Your task to perform on an android device: check storage Image 0: 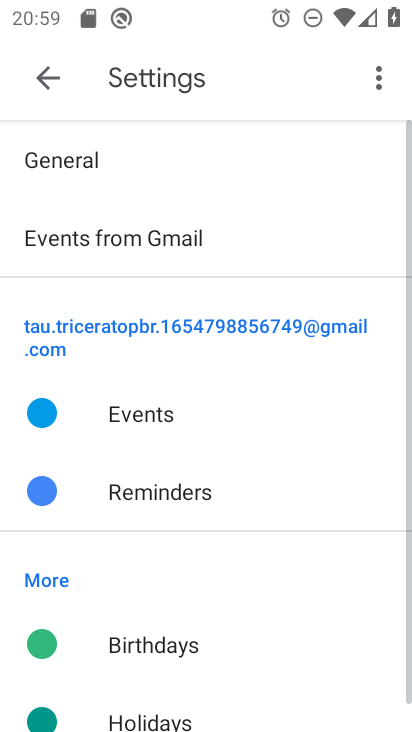
Step 0: press home button
Your task to perform on an android device: check storage Image 1: 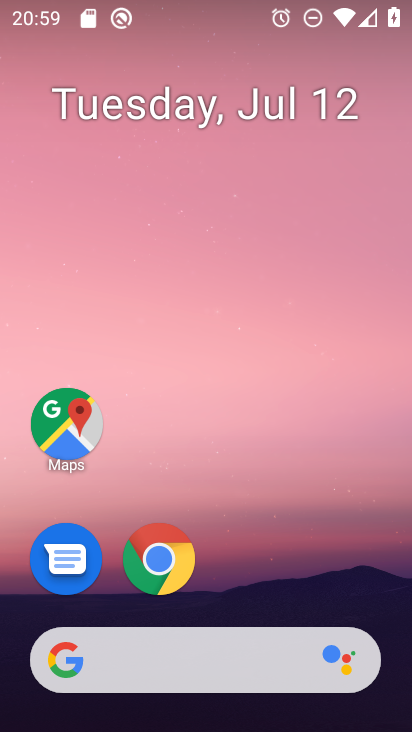
Step 1: drag from (355, 569) to (345, 133)
Your task to perform on an android device: check storage Image 2: 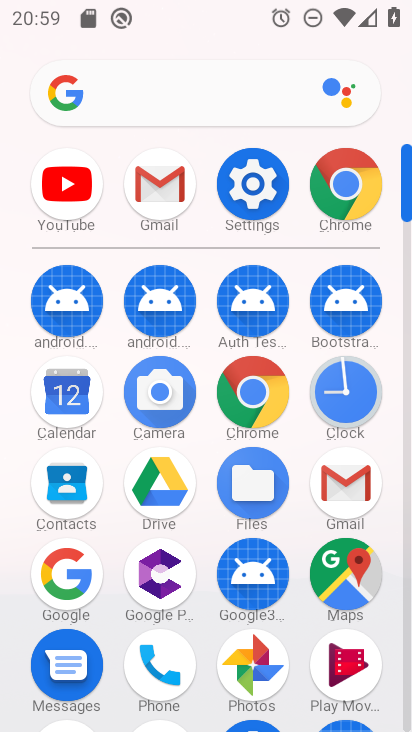
Step 2: click (257, 191)
Your task to perform on an android device: check storage Image 3: 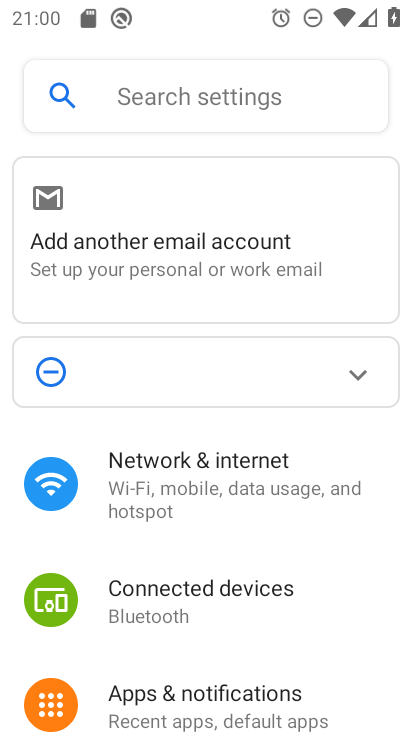
Step 3: drag from (345, 531) to (371, 408)
Your task to perform on an android device: check storage Image 4: 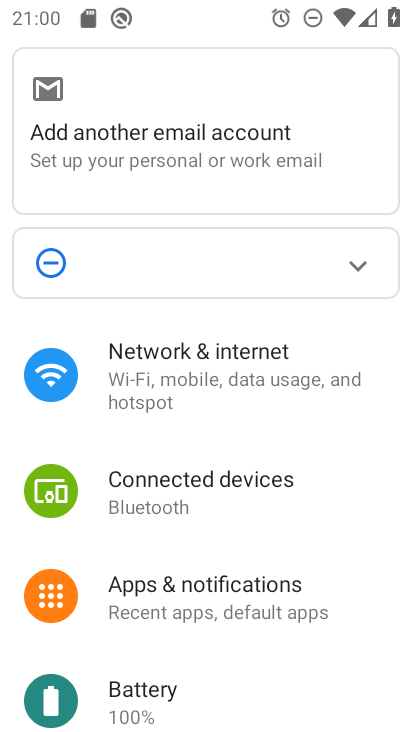
Step 4: drag from (363, 525) to (357, 419)
Your task to perform on an android device: check storage Image 5: 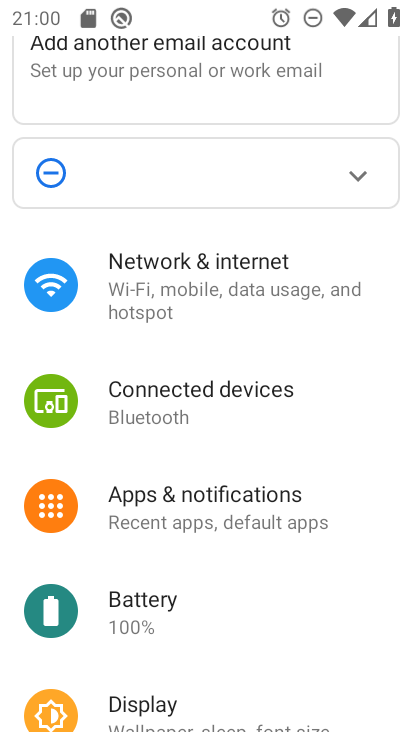
Step 5: drag from (358, 550) to (367, 414)
Your task to perform on an android device: check storage Image 6: 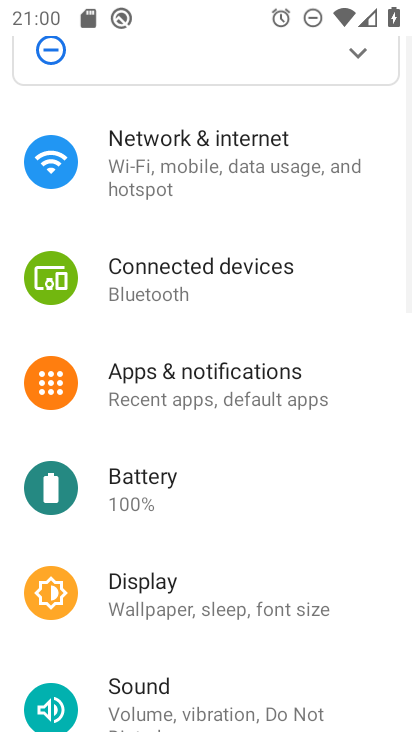
Step 6: drag from (358, 539) to (361, 364)
Your task to perform on an android device: check storage Image 7: 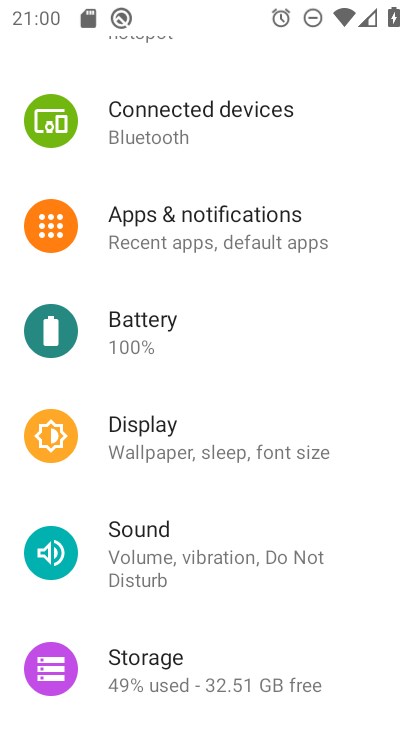
Step 7: drag from (371, 461) to (371, 361)
Your task to perform on an android device: check storage Image 8: 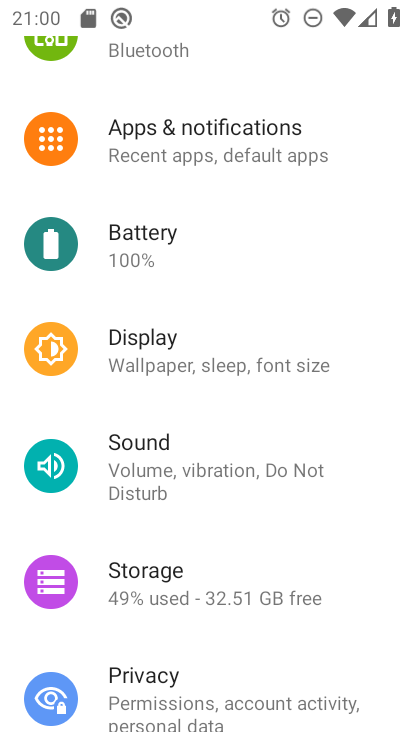
Step 8: drag from (363, 494) to (364, 356)
Your task to perform on an android device: check storage Image 9: 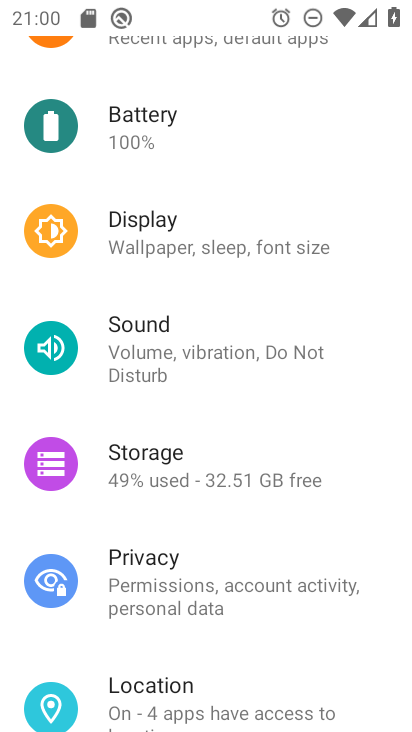
Step 9: drag from (372, 477) to (369, 356)
Your task to perform on an android device: check storage Image 10: 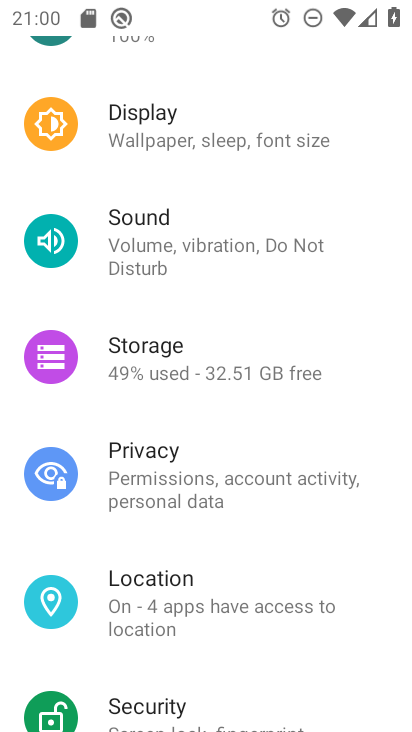
Step 10: click (306, 385)
Your task to perform on an android device: check storage Image 11: 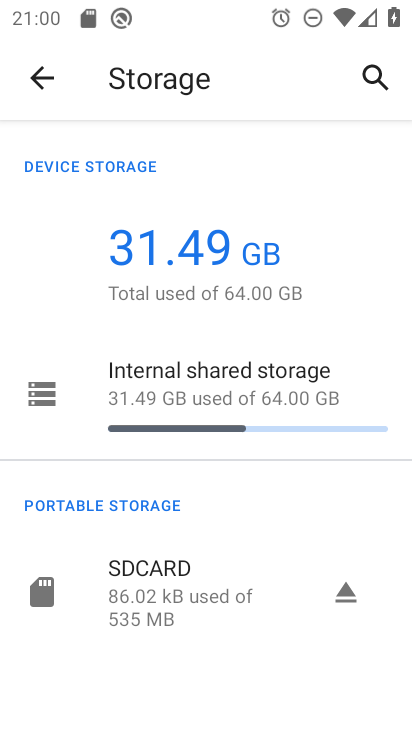
Step 11: task complete